Your task to perform on an android device: toggle data saver in the chrome app Image 0: 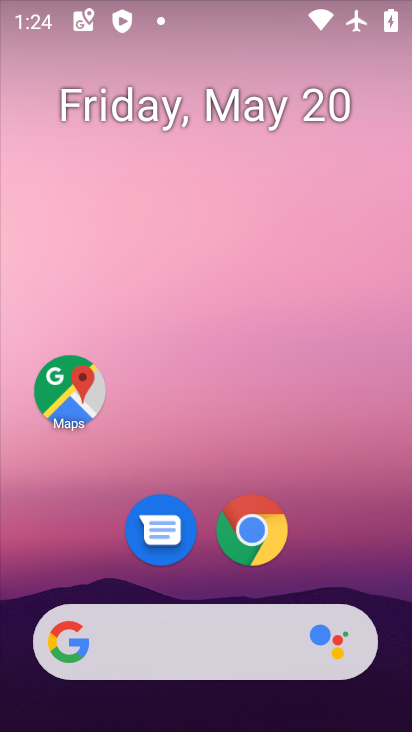
Step 0: click (232, 528)
Your task to perform on an android device: toggle data saver in the chrome app Image 1: 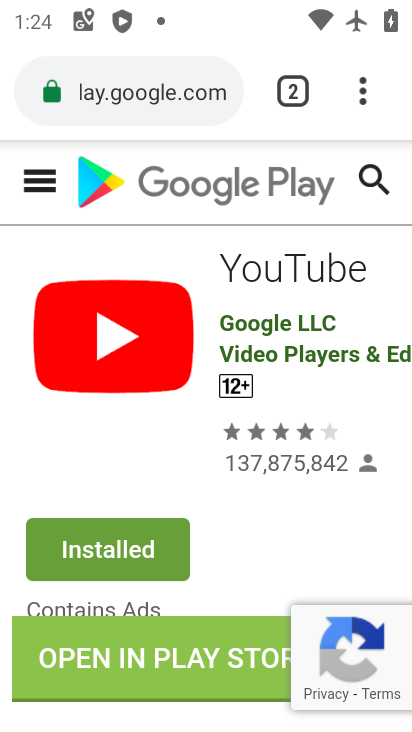
Step 1: click (370, 83)
Your task to perform on an android device: toggle data saver in the chrome app Image 2: 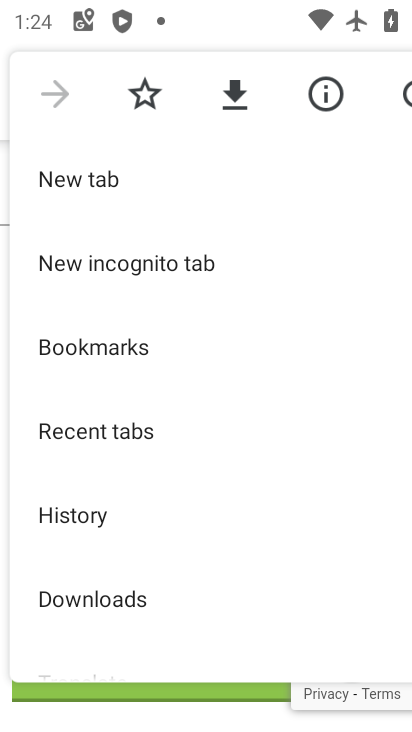
Step 2: drag from (145, 542) to (157, 334)
Your task to perform on an android device: toggle data saver in the chrome app Image 3: 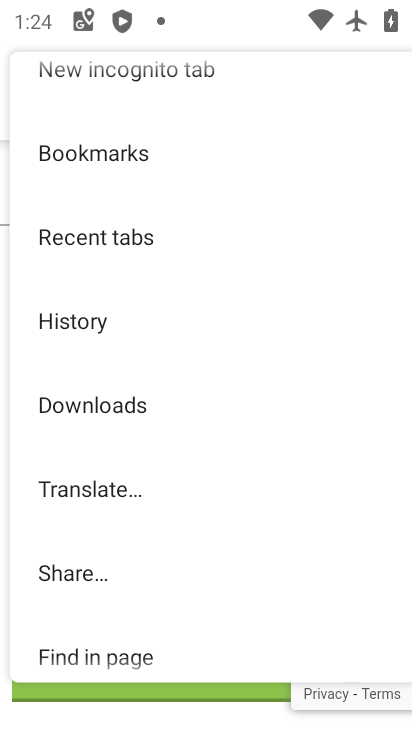
Step 3: drag from (231, 604) to (264, 284)
Your task to perform on an android device: toggle data saver in the chrome app Image 4: 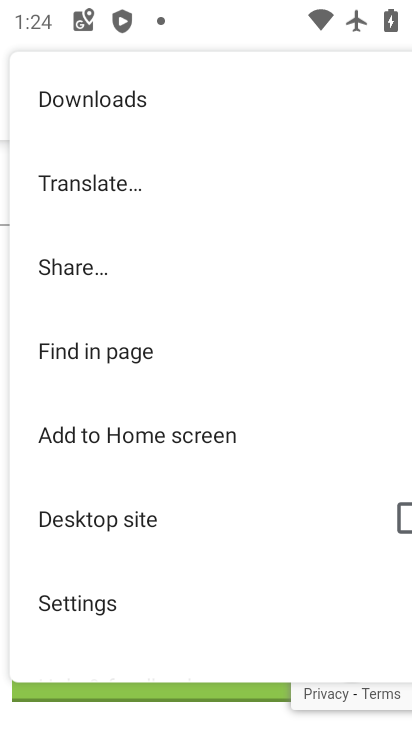
Step 4: click (128, 599)
Your task to perform on an android device: toggle data saver in the chrome app Image 5: 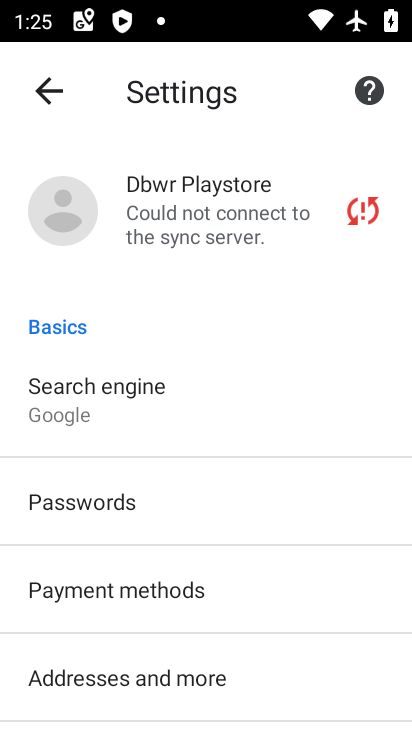
Step 5: drag from (295, 676) to (186, 29)
Your task to perform on an android device: toggle data saver in the chrome app Image 6: 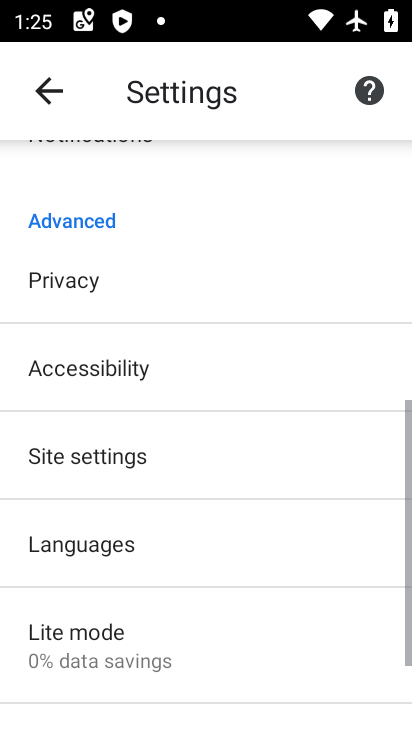
Step 6: click (233, 630)
Your task to perform on an android device: toggle data saver in the chrome app Image 7: 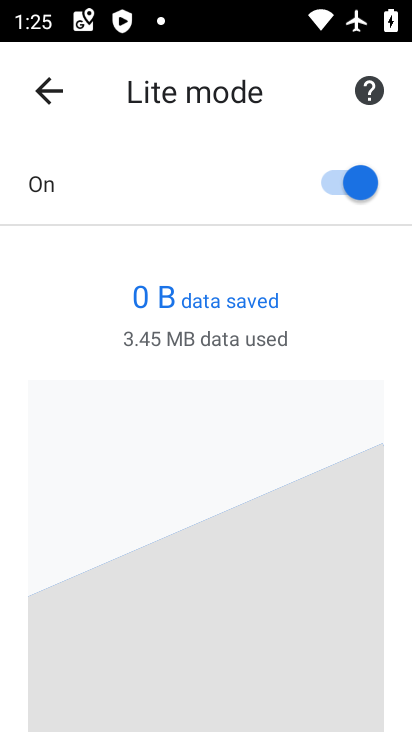
Step 7: click (354, 178)
Your task to perform on an android device: toggle data saver in the chrome app Image 8: 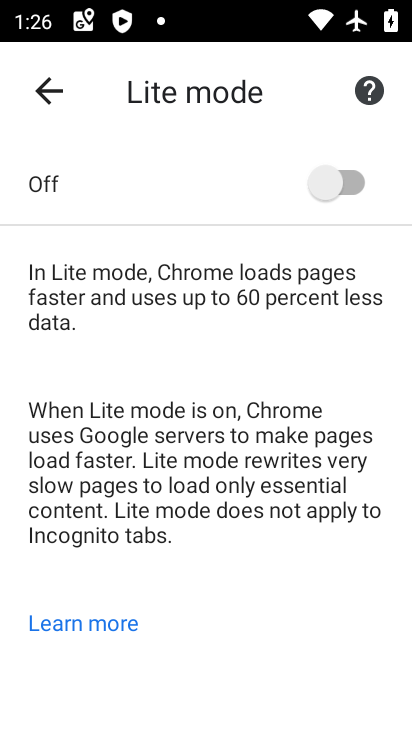
Step 8: task complete